Your task to perform on an android device: turn on the 24-hour format for clock Image 0: 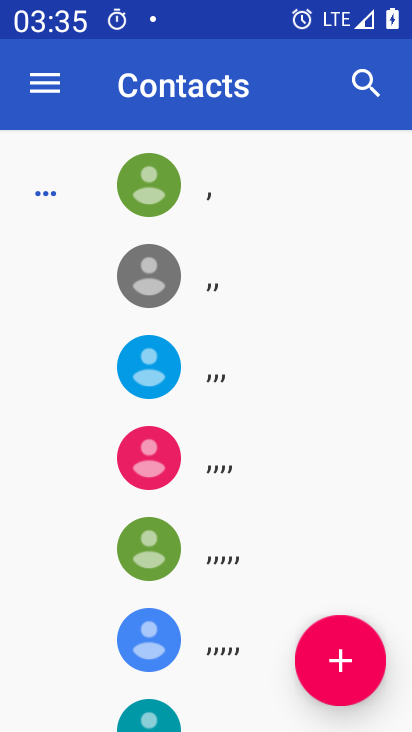
Step 0: press back button
Your task to perform on an android device: turn on the 24-hour format for clock Image 1: 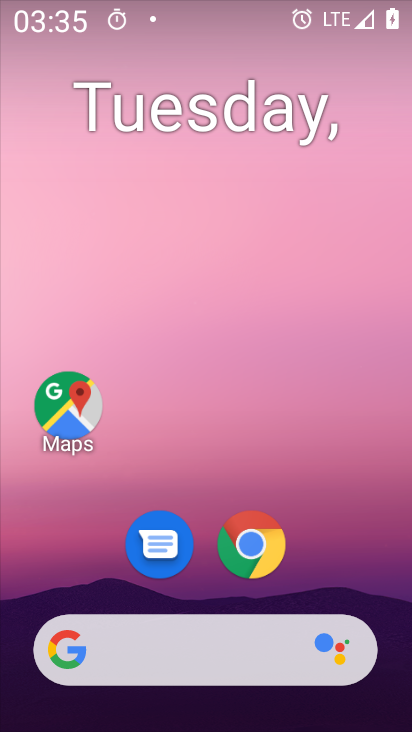
Step 1: drag from (325, 547) to (255, 41)
Your task to perform on an android device: turn on the 24-hour format for clock Image 2: 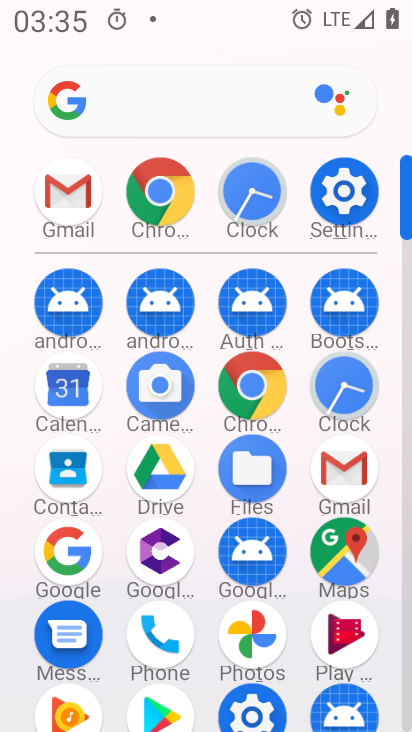
Step 2: click (345, 384)
Your task to perform on an android device: turn on the 24-hour format for clock Image 3: 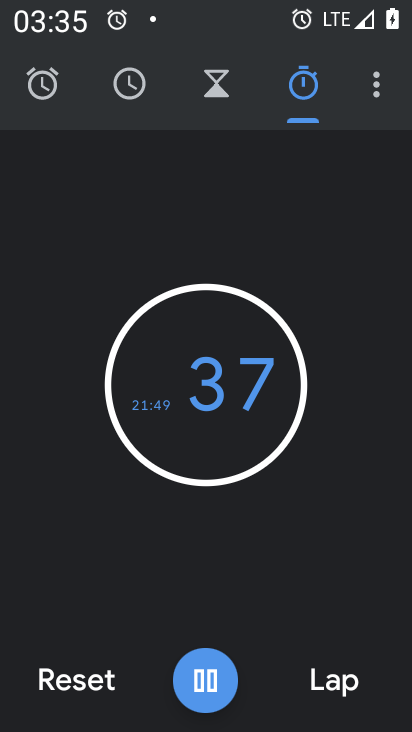
Step 3: drag from (373, 85) to (280, 167)
Your task to perform on an android device: turn on the 24-hour format for clock Image 4: 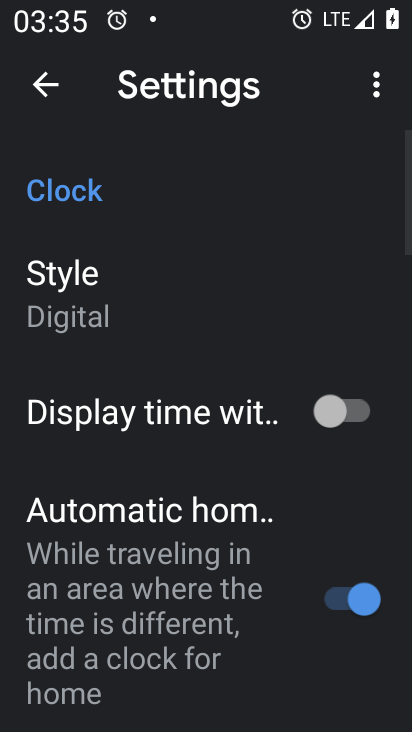
Step 4: drag from (230, 583) to (220, 189)
Your task to perform on an android device: turn on the 24-hour format for clock Image 5: 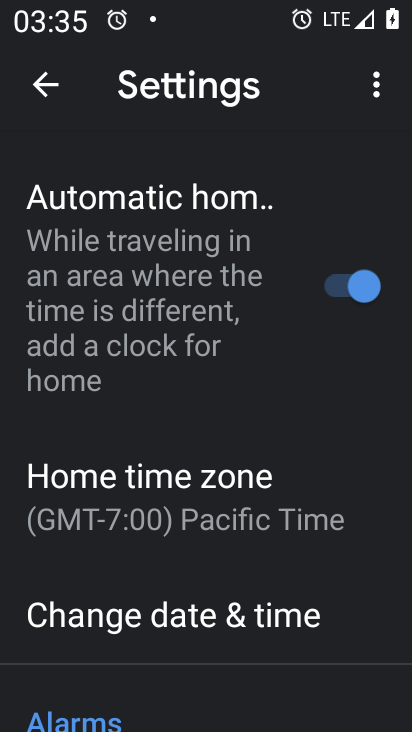
Step 5: drag from (180, 523) to (188, 222)
Your task to perform on an android device: turn on the 24-hour format for clock Image 6: 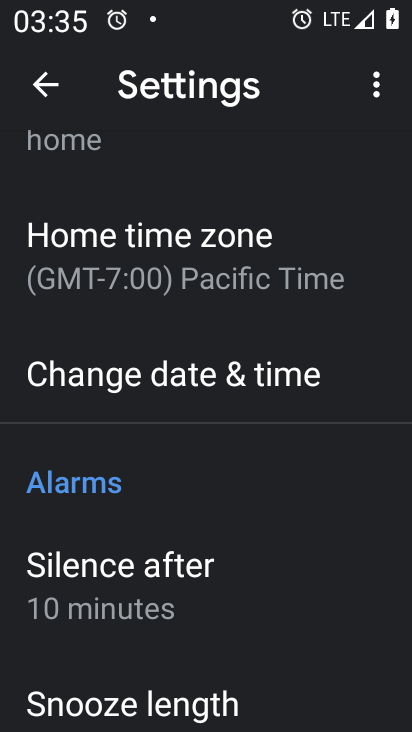
Step 6: click (187, 373)
Your task to perform on an android device: turn on the 24-hour format for clock Image 7: 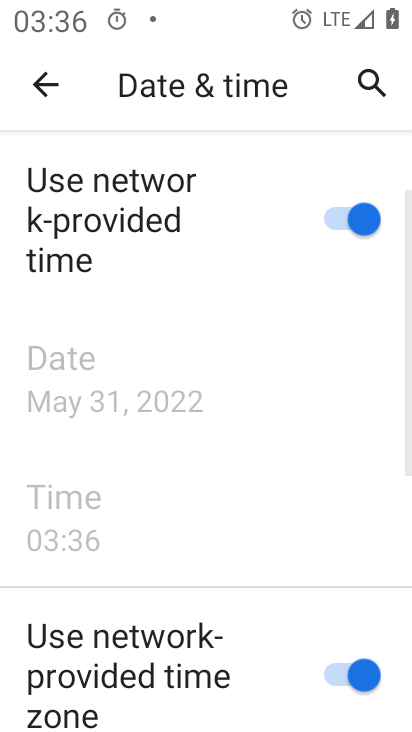
Step 7: task complete